Your task to perform on an android device: change the clock display to show seconds Image 0: 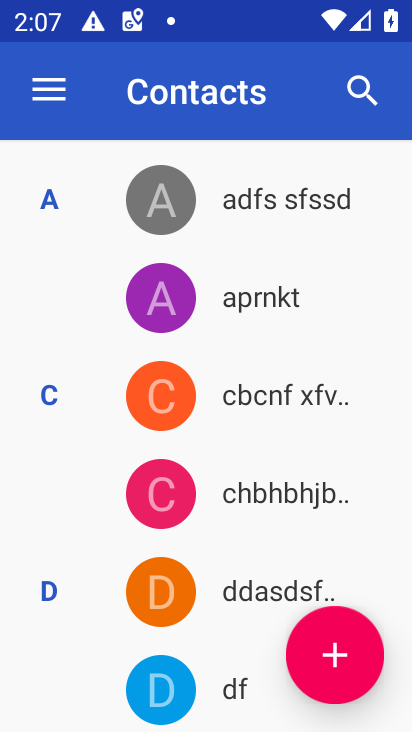
Step 0: press home button
Your task to perform on an android device: change the clock display to show seconds Image 1: 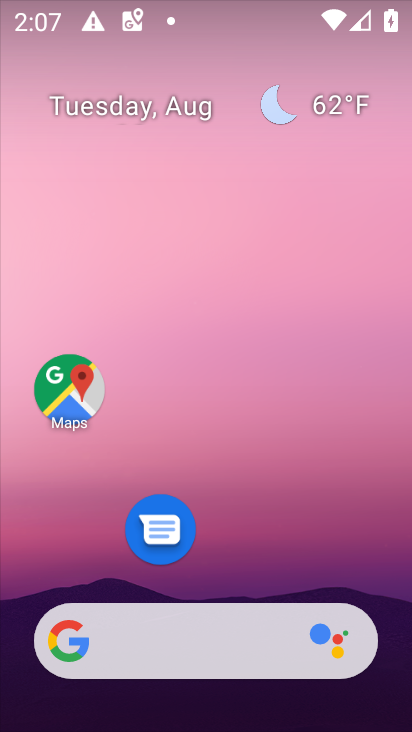
Step 1: drag from (286, 582) to (227, 98)
Your task to perform on an android device: change the clock display to show seconds Image 2: 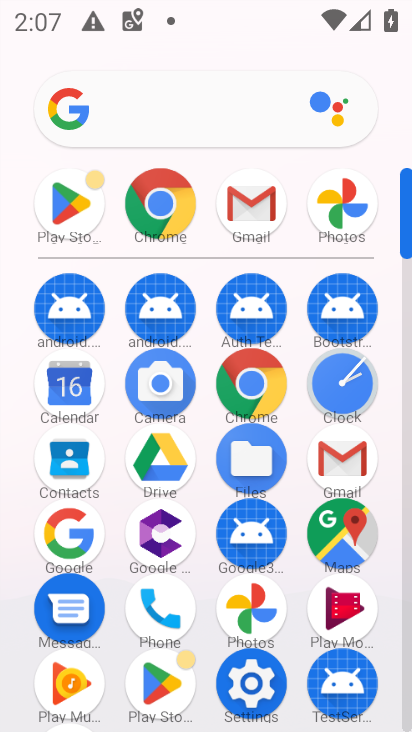
Step 2: click (324, 377)
Your task to perform on an android device: change the clock display to show seconds Image 3: 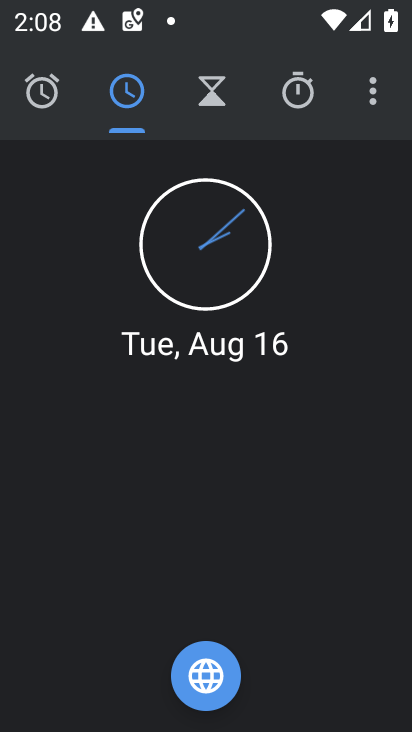
Step 3: click (372, 91)
Your task to perform on an android device: change the clock display to show seconds Image 4: 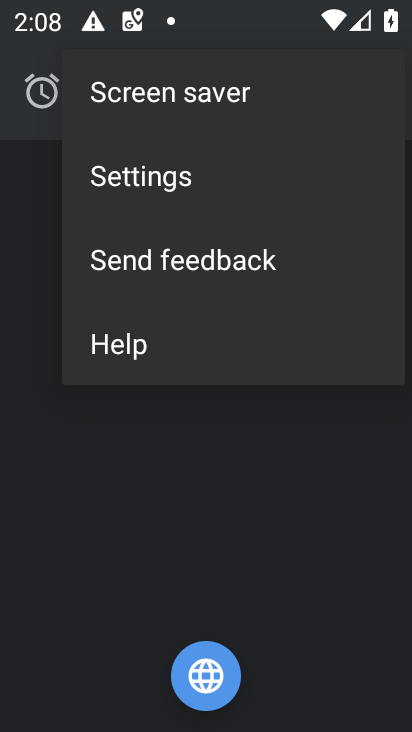
Step 4: click (248, 182)
Your task to perform on an android device: change the clock display to show seconds Image 5: 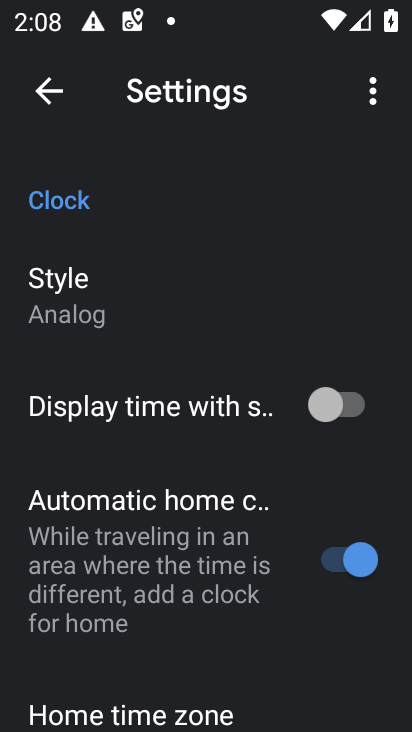
Step 5: click (115, 309)
Your task to perform on an android device: change the clock display to show seconds Image 6: 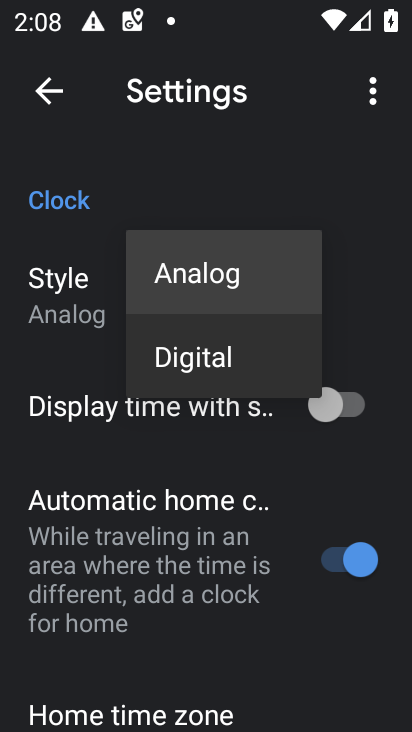
Step 6: click (203, 379)
Your task to perform on an android device: change the clock display to show seconds Image 7: 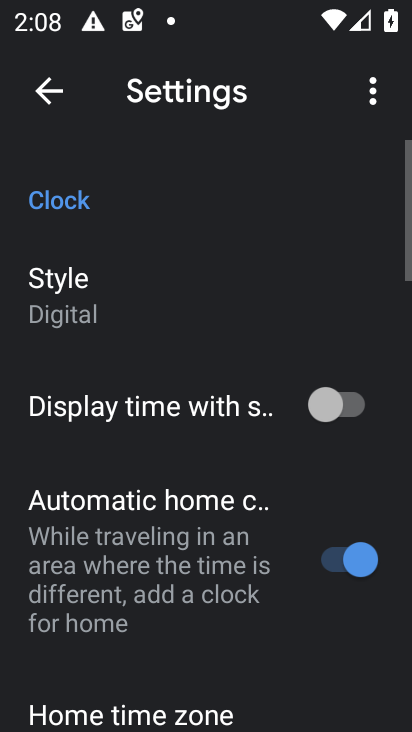
Step 7: task complete